Your task to perform on an android device: change the clock style Image 0: 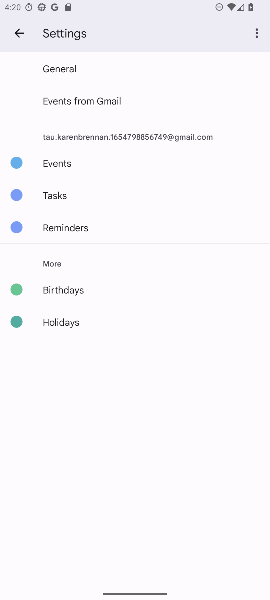
Step 0: drag from (142, 199) to (200, 449)
Your task to perform on an android device: change the clock style Image 1: 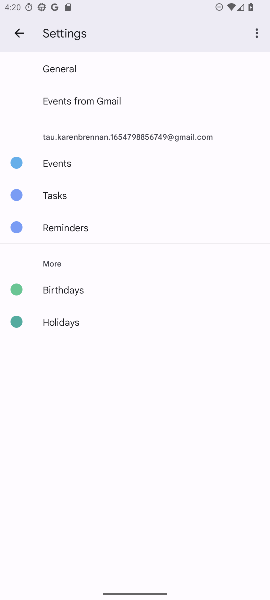
Step 1: press home button
Your task to perform on an android device: change the clock style Image 2: 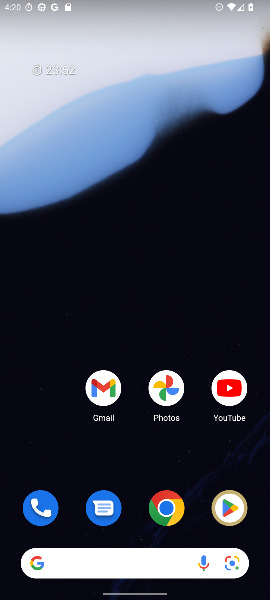
Step 2: drag from (144, 492) to (197, 74)
Your task to perform on an android device: change the clock style Image 3: 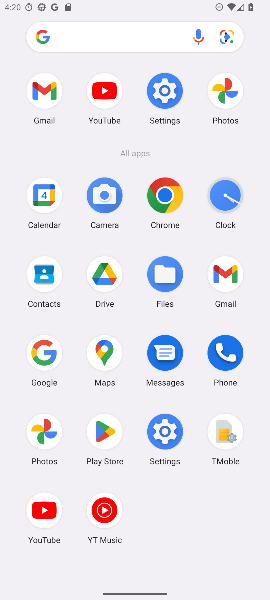
Step 3: click (220, 191)
Your task to perform on an android device: change the clock style Image 4: 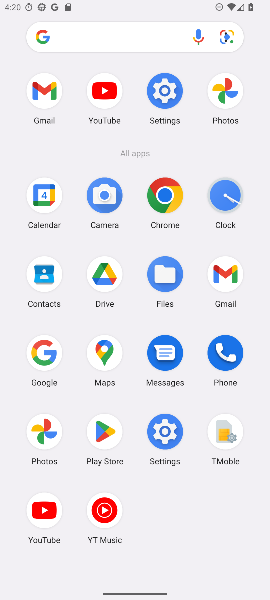
Step 4: click (219, 190)
Your task to perform on an android device: change the clock style Image 5: 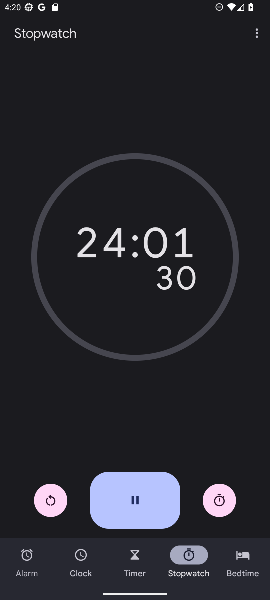
Step 5: click (54, 500)
Your task to perform on an android device: change the clock style Image 6: 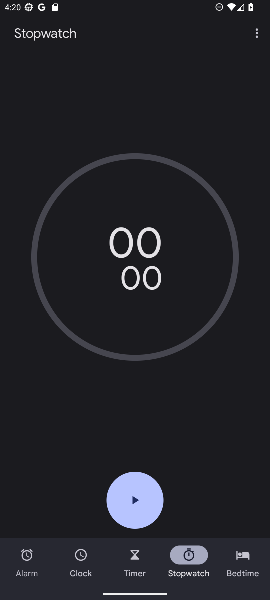
Step 6: drag from (105, 444) to (136, 181)
Your task to perform on an android device: change the clock style Image 7: 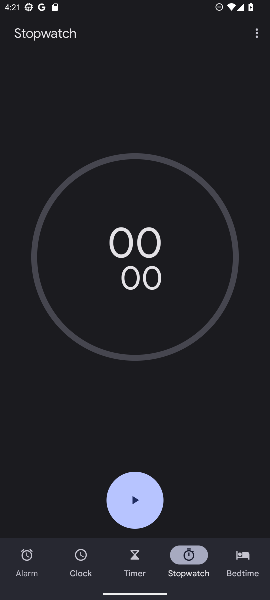
Step 7: drag from (250, 38) to (192, 96)
Your task to perform on an android device: change the clock style Image 8: 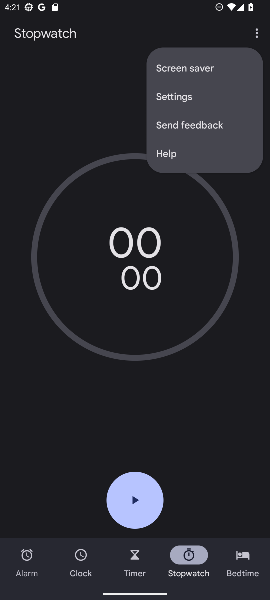
Step 8: click (193, 95)
Your task to perform on an android device: change the clock style Image 9: 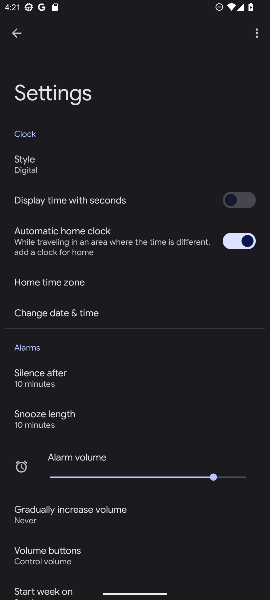
Step 9: click (35, 161)
Your task to perform on an android device: change the clock style Image 10: 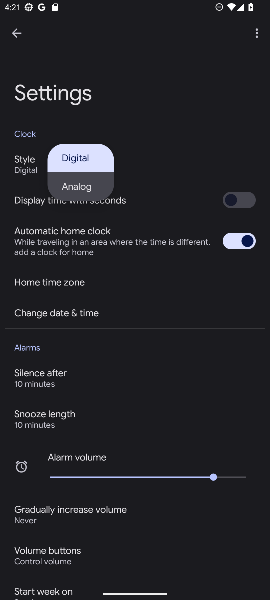
Step 10: click (99, 181)
Your task to perform on an android device: change the clock style Image 11: 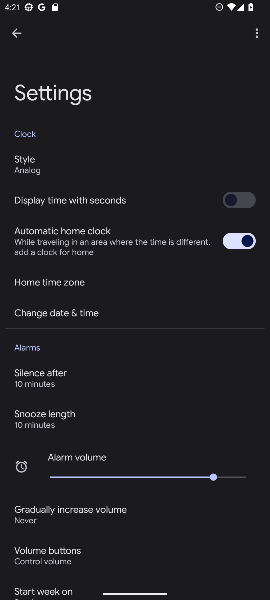
Step 11: task complete